Your task to perform on an android device: Check the news Image 0: 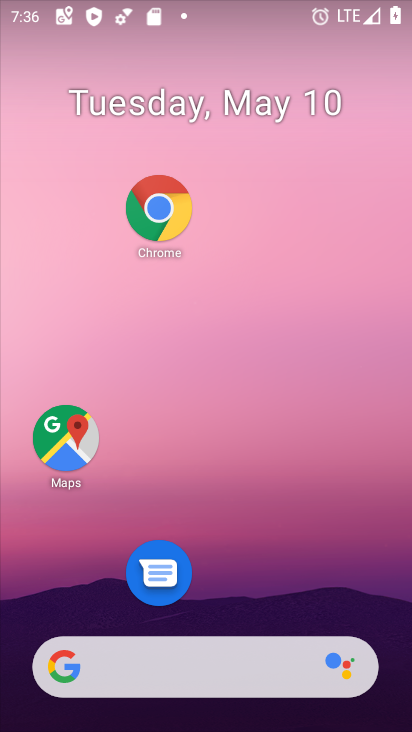
Step 0: press home button
Your task to perform on an android device: Check the news Image 1: 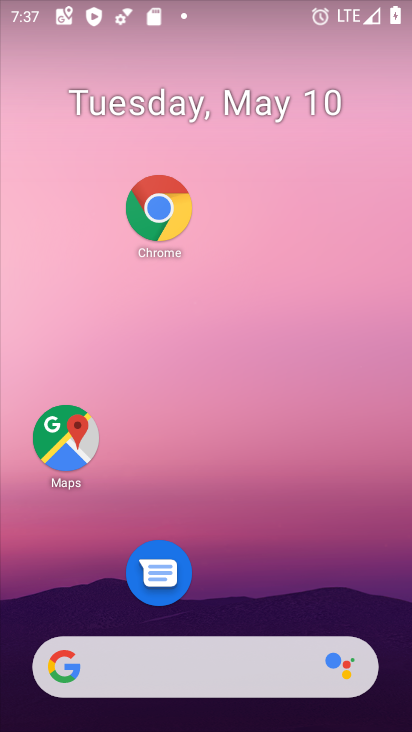
Step 1: click (225, 681)
Your task to perform on an android device: Check the news Image 2: 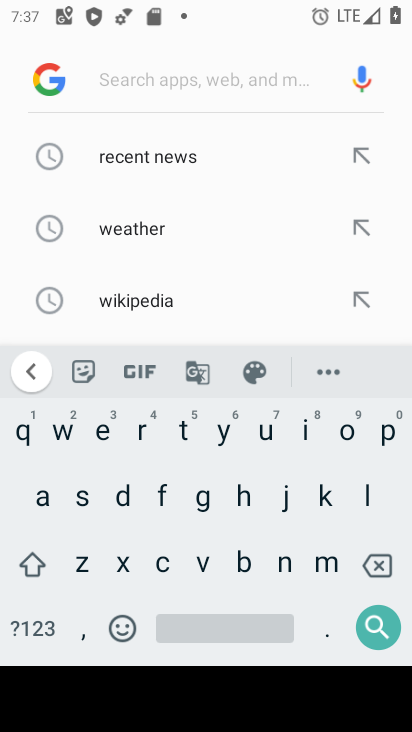
Step 2: click (275, 573)
Your task to perform on an android device: Check the news Image 3: 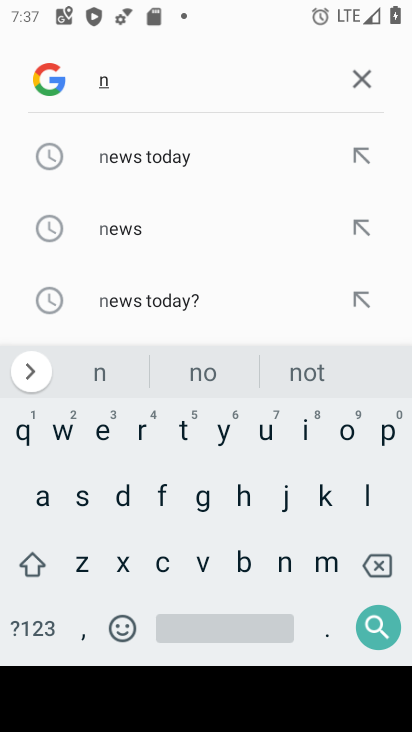
Step 3: click (137, 234)
Your task to perform on an android device: Check the news Image 4: 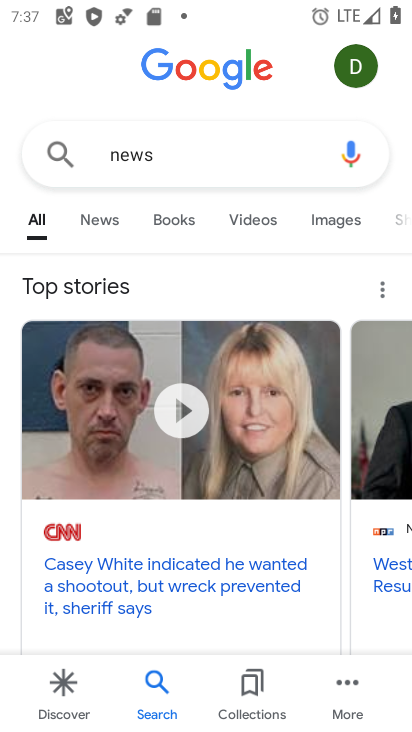
Step 4: task complete